Your task to perform on an android device: Search for seafood restaurants on Google Maps Image 0: 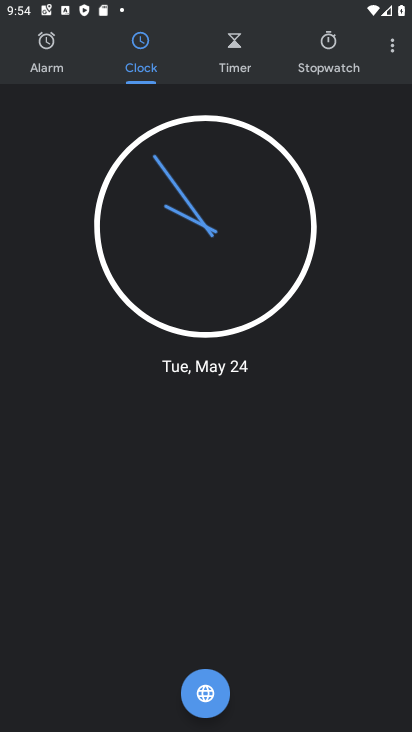
Step 0: press home button
Your task to perform on an android device: Search for seafood restaurants on Google Maps Image 1: 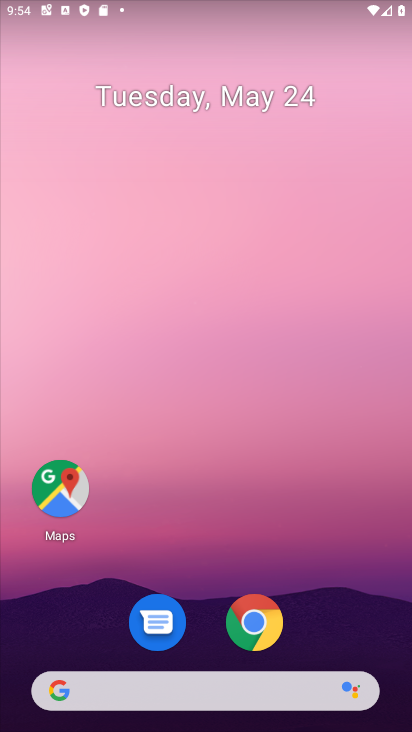
Step 1: drag from (273, 701) to (386, 0)
Your task to perform on an android device: Search for seafood restaurants on Google Maps Image 2: 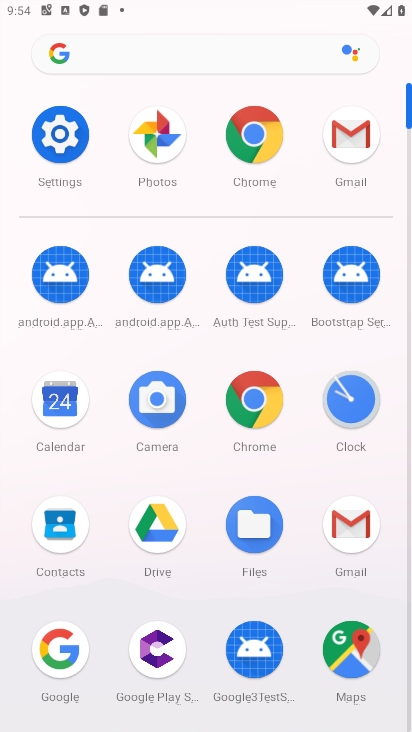
Step 2: click (342, 659)
Your task to perform on an android device: Search for seafood restaurants on Google Maps Image 3: 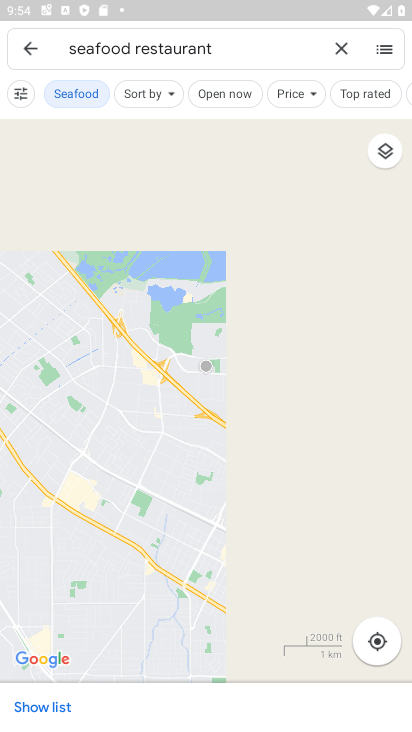
Step 3: click (251, 48)
Your task to perform on an android device: Search for seafood restaurants on Google Maps Image 4: 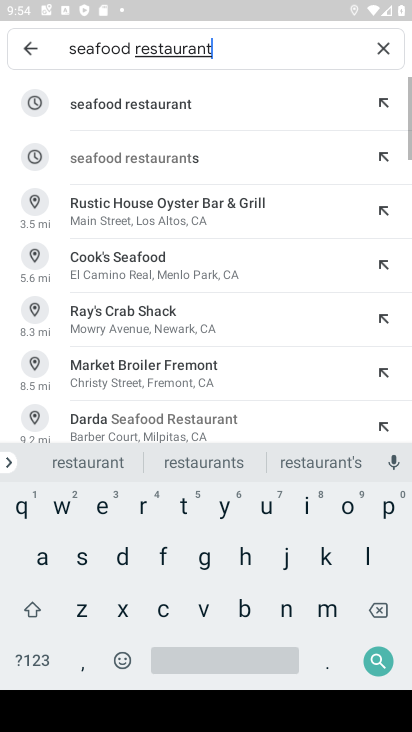
Step 4: click (375, 668)
Your task to perform on an android device: Search for seafood restaurants on Google Maps Image 5: 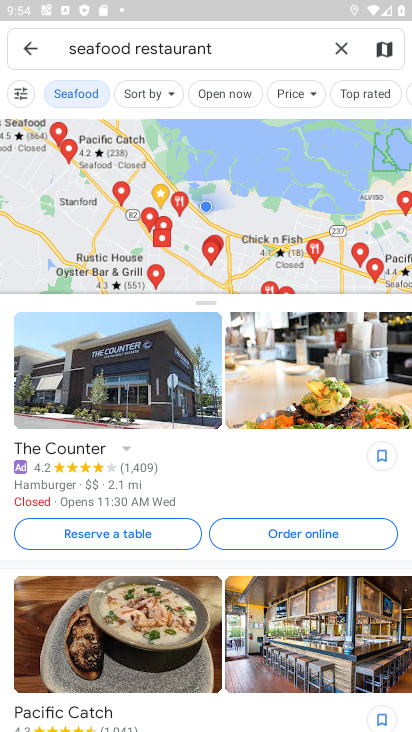
Step 5: click (141, 262)
Your task to perform on an android device: Search for seafood restaurants on Google Maps Image 6: 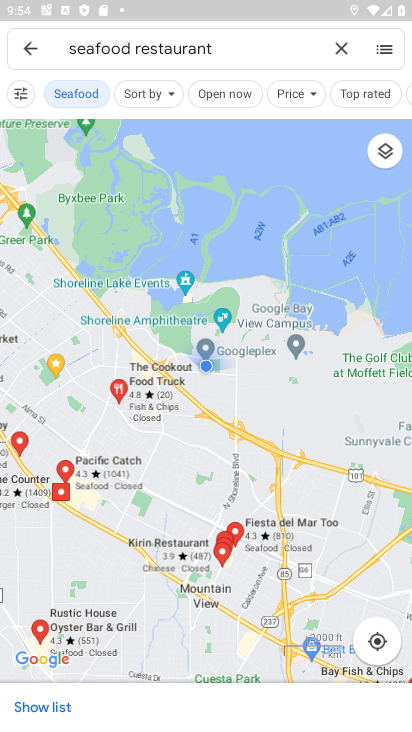
Step 6: task complete